Your task to perform on an android device: turn pop-ups on in chrome Image 0: 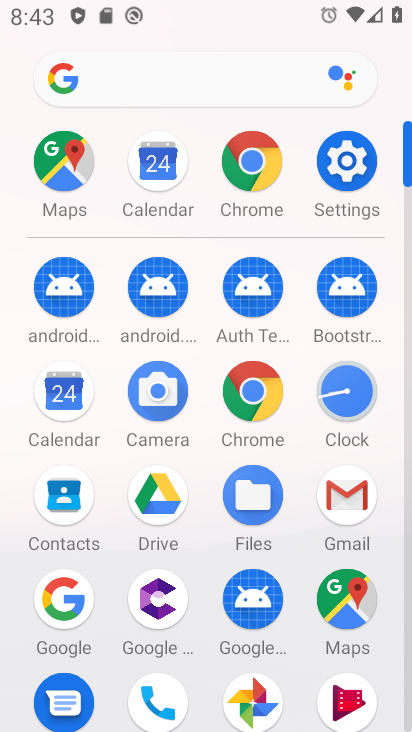
Step 0: click (250, 182)
Your task to perform on an android device: turn pop-ups on in chrome Image 1: 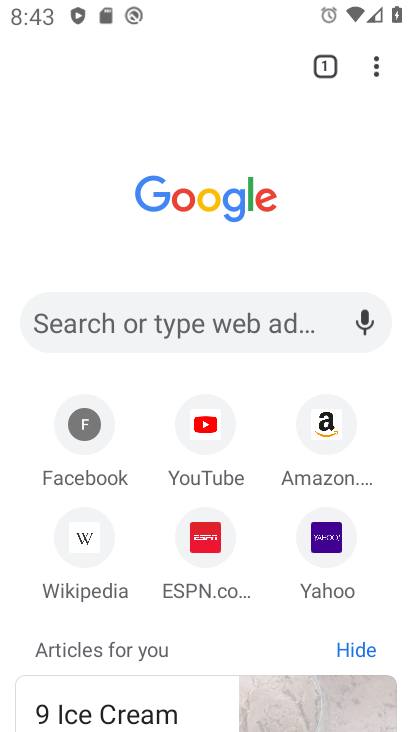
Step 1: click (380, 67)
Your task to perform on an android device: turn pop-ups on in chrome Image 2: 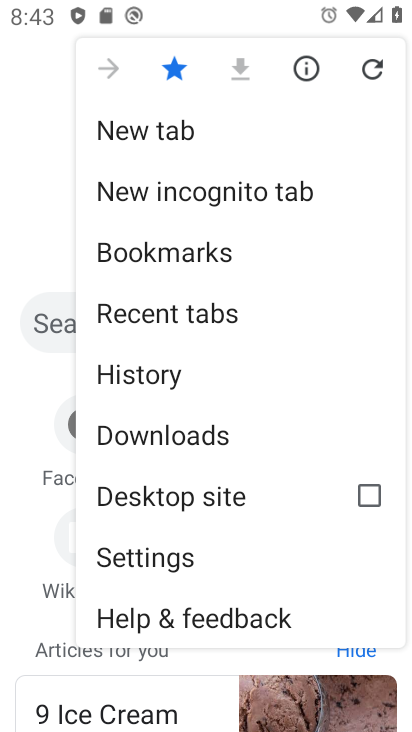
Step 2: click (163, 567)
Your task to perform on an android device: turn pop-ups on in chrome Image 3: 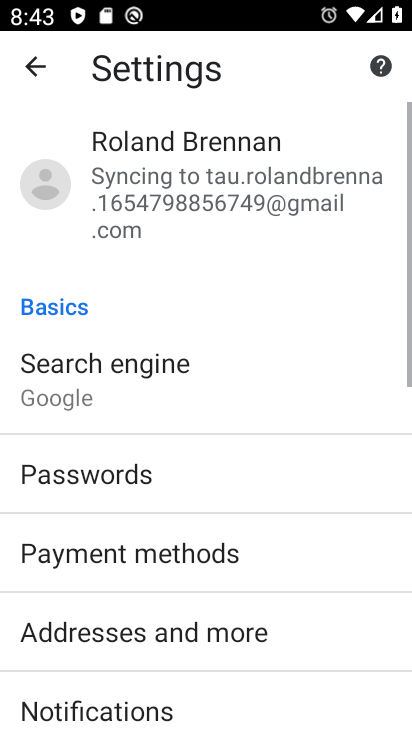
Step 3: drag from (200, 634) to (97, 43)
Your task to perform on an android device: turn pop-ups on in chrome Image 4: 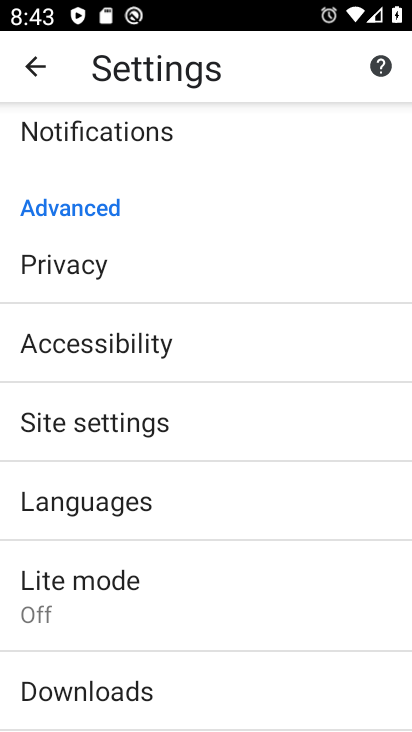
Step 4: click (107, 434)
Your task to perform on an android device: turn pop-ups on in chrome Image 5: 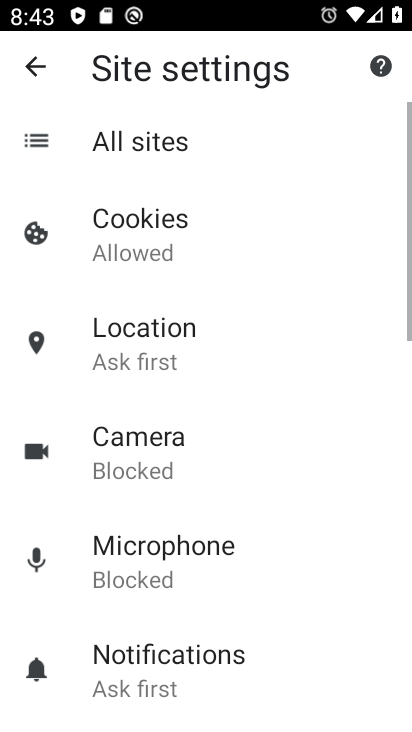
Step 5: drag from (181, 600) to (94, 91)
Your task to perform on an android device: turn pop-ups on in chrome Image 6: 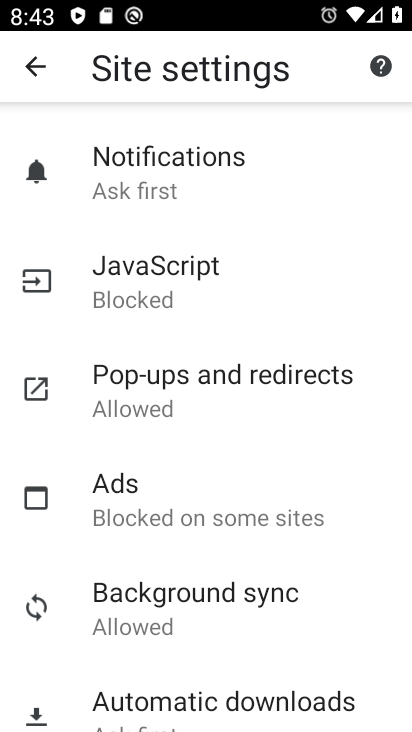
Step 6: click (136, 386)
Your task to perform on an android device: turn pop-ups on in chrome Image 7: 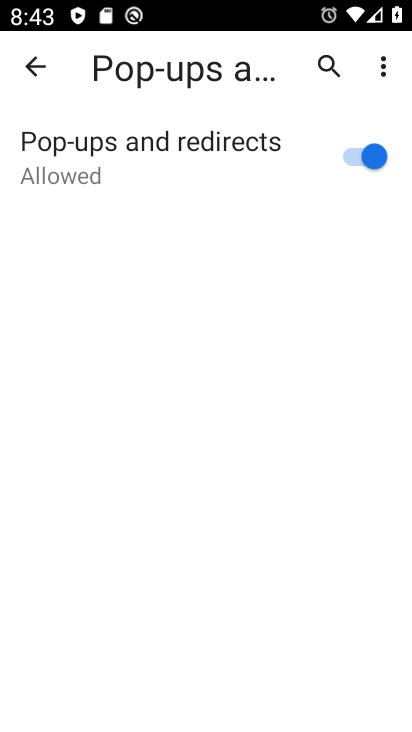
Step 7: task complete